Your task to perform on an android device: Go to CNN.com Image 0: 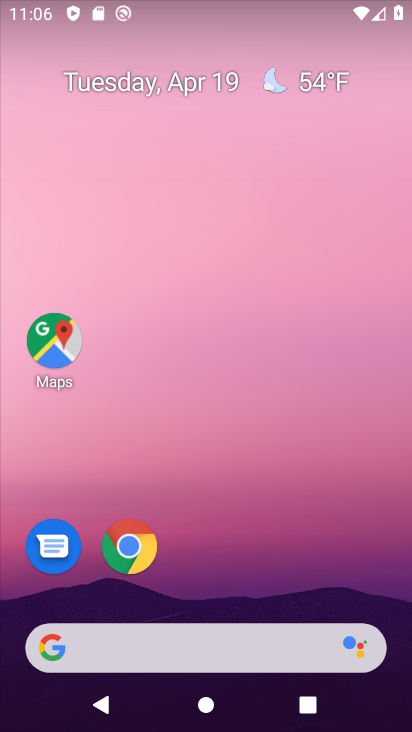
Step 0: click (195, 653)
Your task to perform on an android device: Go to CNN.com Image 1: 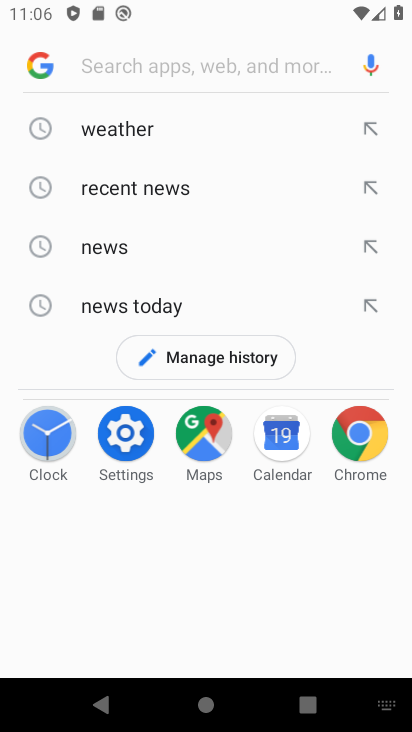
Step 1: type "cnn.com"
Your task to perform on an android device: Go to CNN.com Image 2: 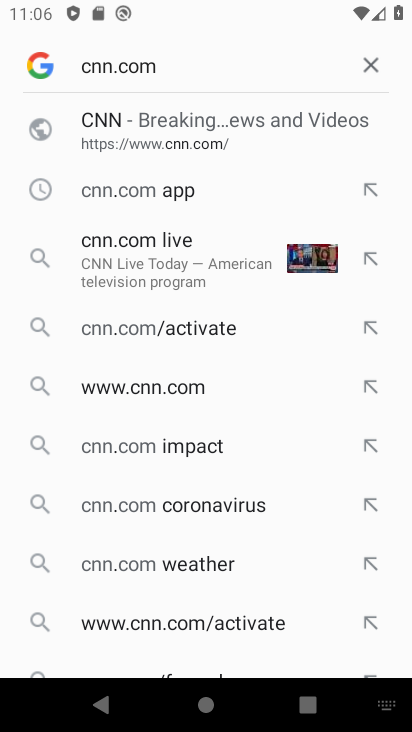
Step 2: click (276, 135)
Your task to perform on an android device: Go to CNN.com Image 3: 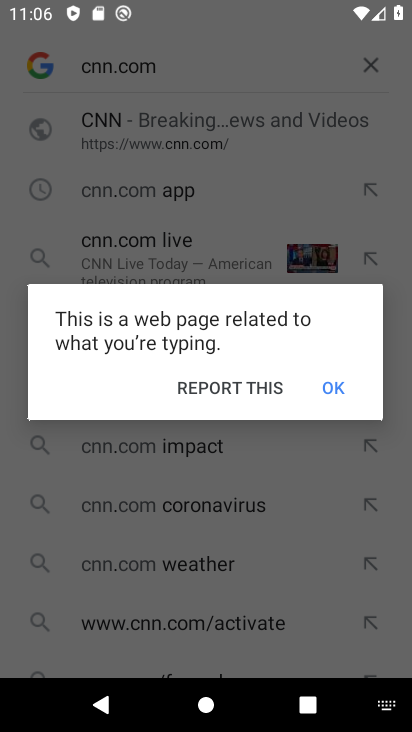
Step 3: click (221, 144)
Your task to perform on an android device: Go to CNN.com Image 4: 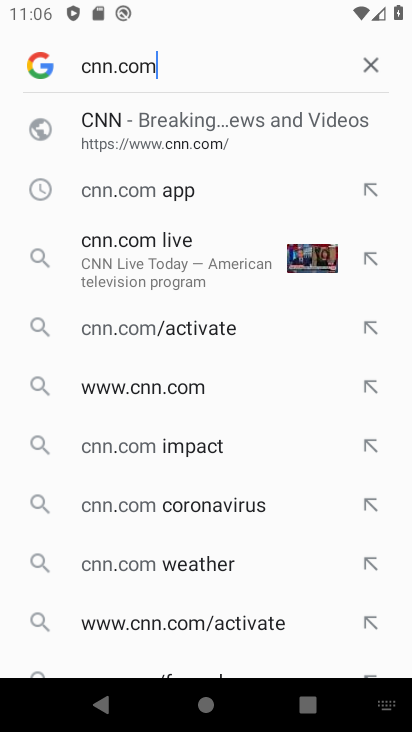
Step 4: click (257, 137)
Your task to perform on an android device: Go to CNN.com Image 5: 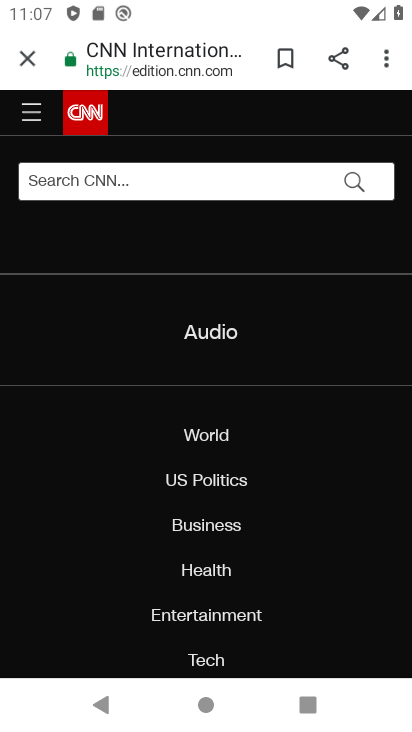
Step 5: task complete